Your task to perform on an android device: Go to battery settings Image 0: 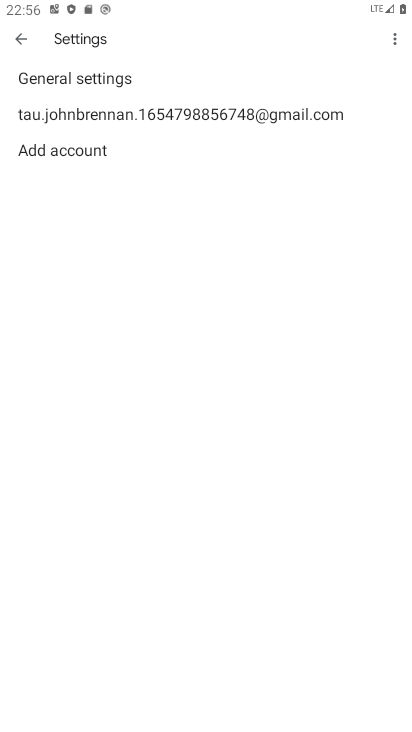
Step 0: press home button
Your task to perform on an android device: Go to battery settings Image 1: 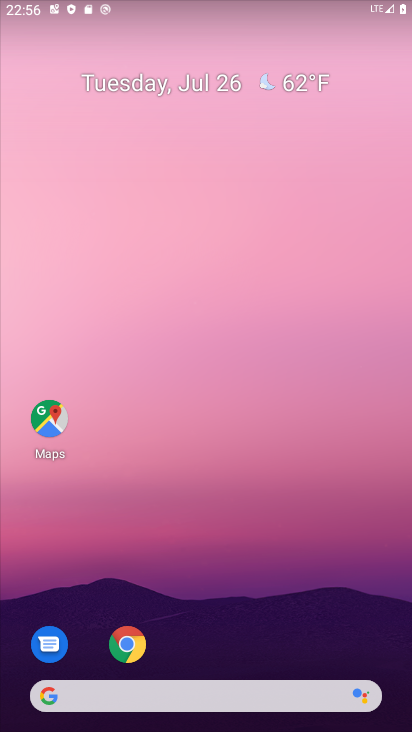
Step 1: drag from (232, 624) to (309, 23)
Your task to perform on an android device: Go to battery settings Image 2: 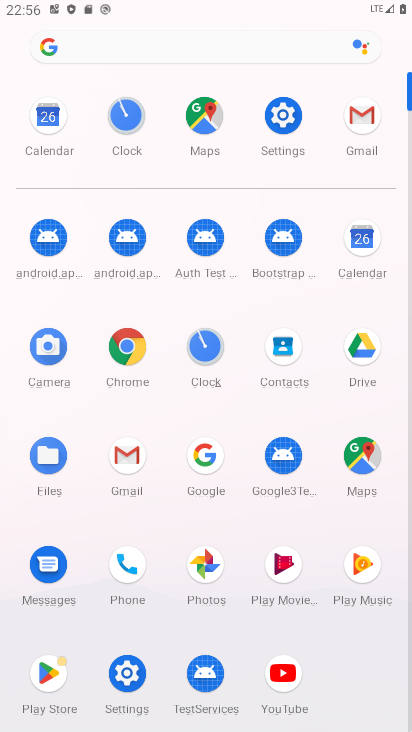
Step 2: click (285, 118)
Your task to perform on an android device: Go to battery settings Image 3: 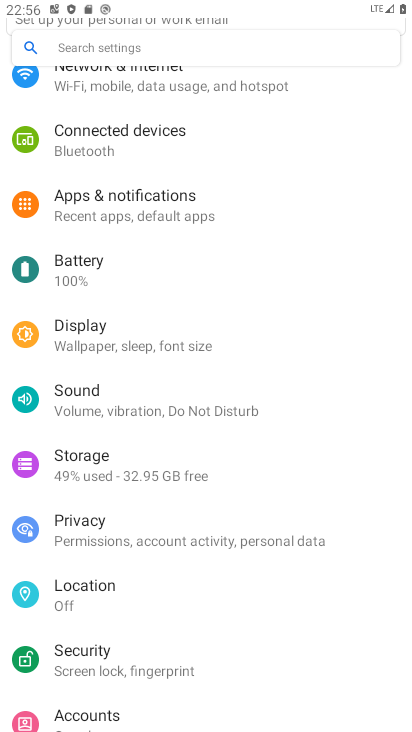
Step 3: click (78, 267)
Your task to perform on an android device: Go to battery settings Image 4: 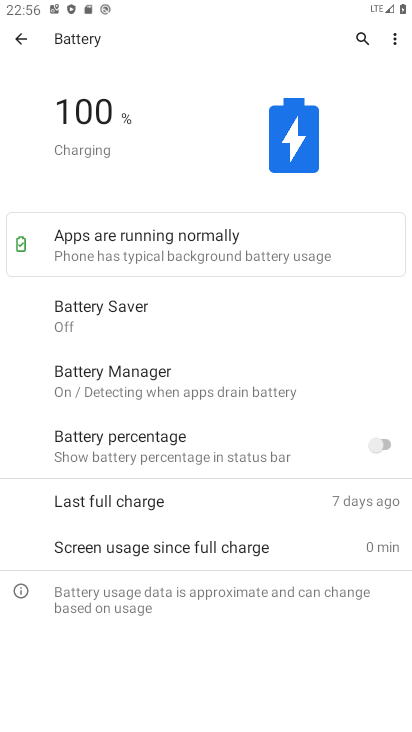
Step 4: task complete